Your task to perform on an android device: stop showing notifications on the lock screen Image 0: 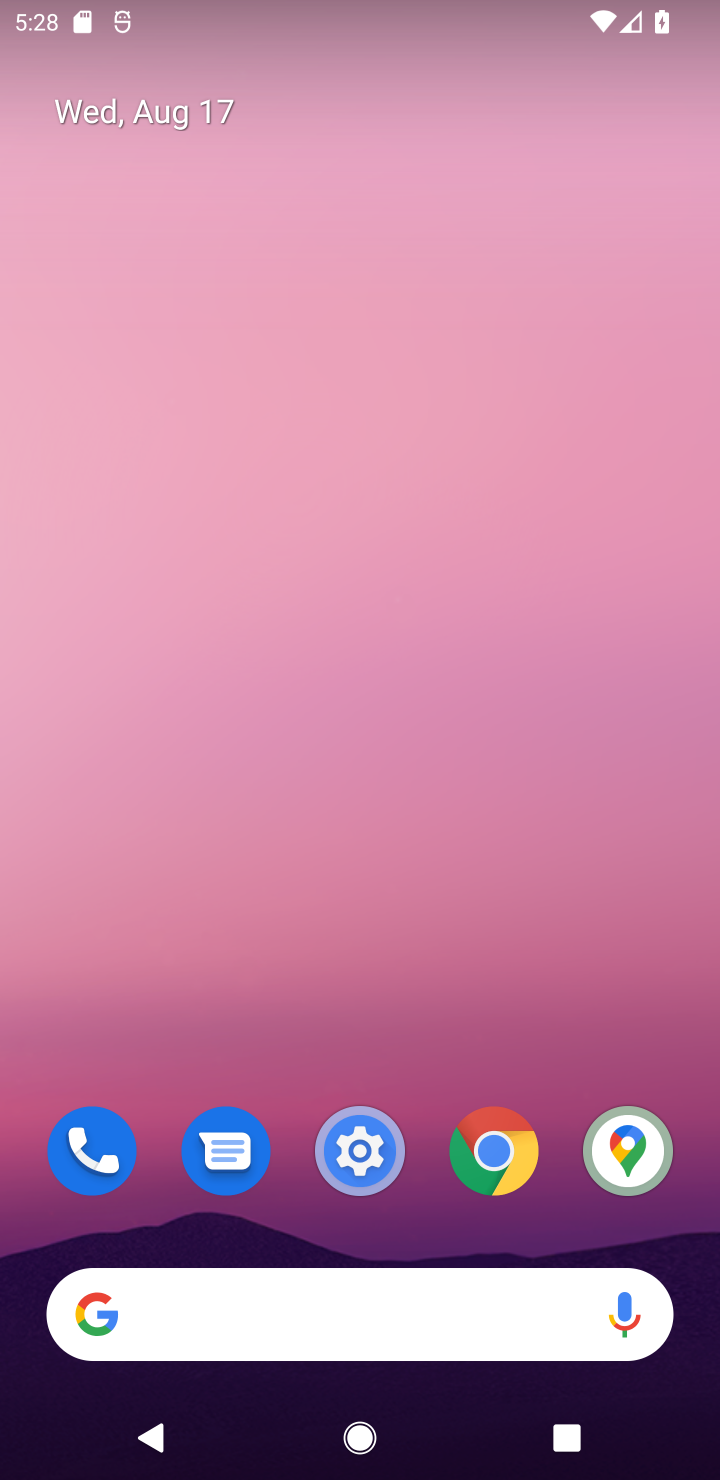
Step 0: click (347, 1207)
Your task to perform on an android device: stop showing notifications on the lock screen Image 1: 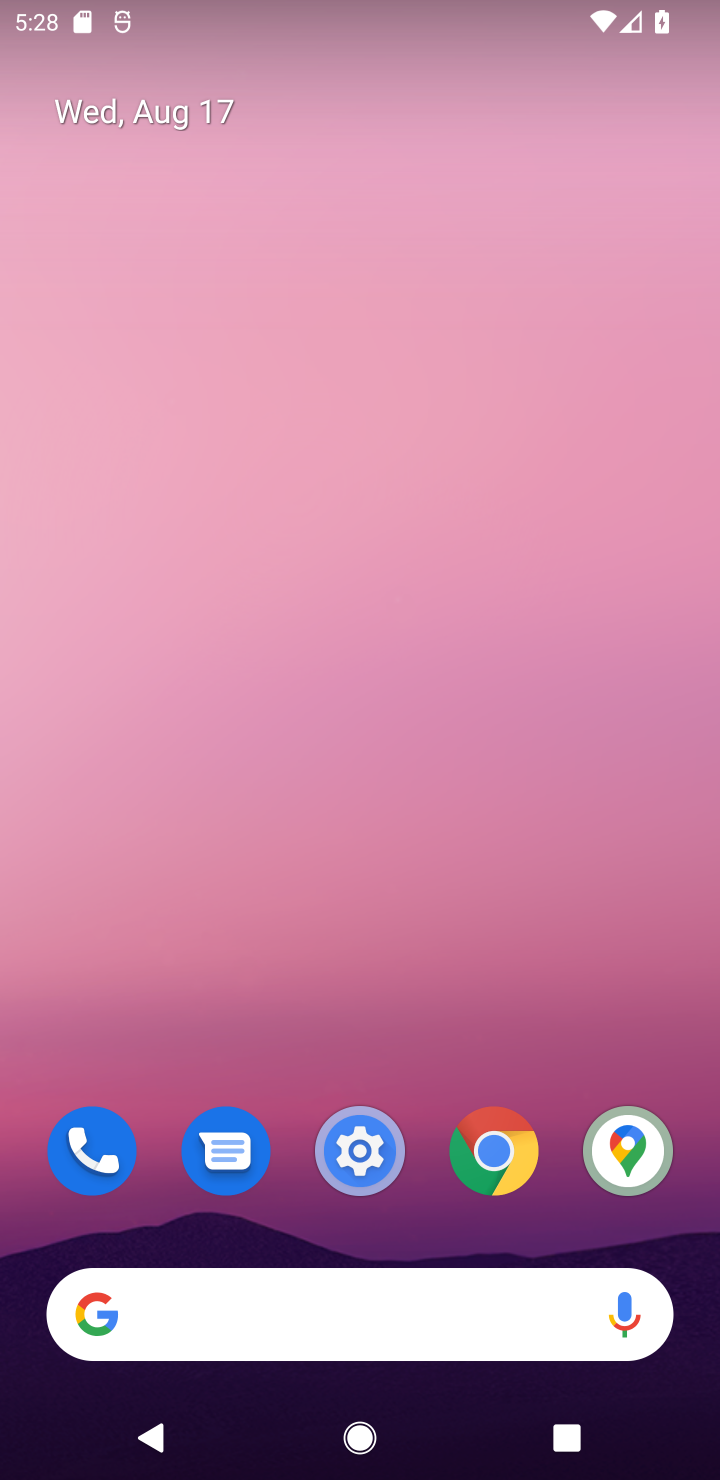
Step 1: click (344, 1161)
Your task to perform on an android device: stop showing notifications on the lock screen Image 2: 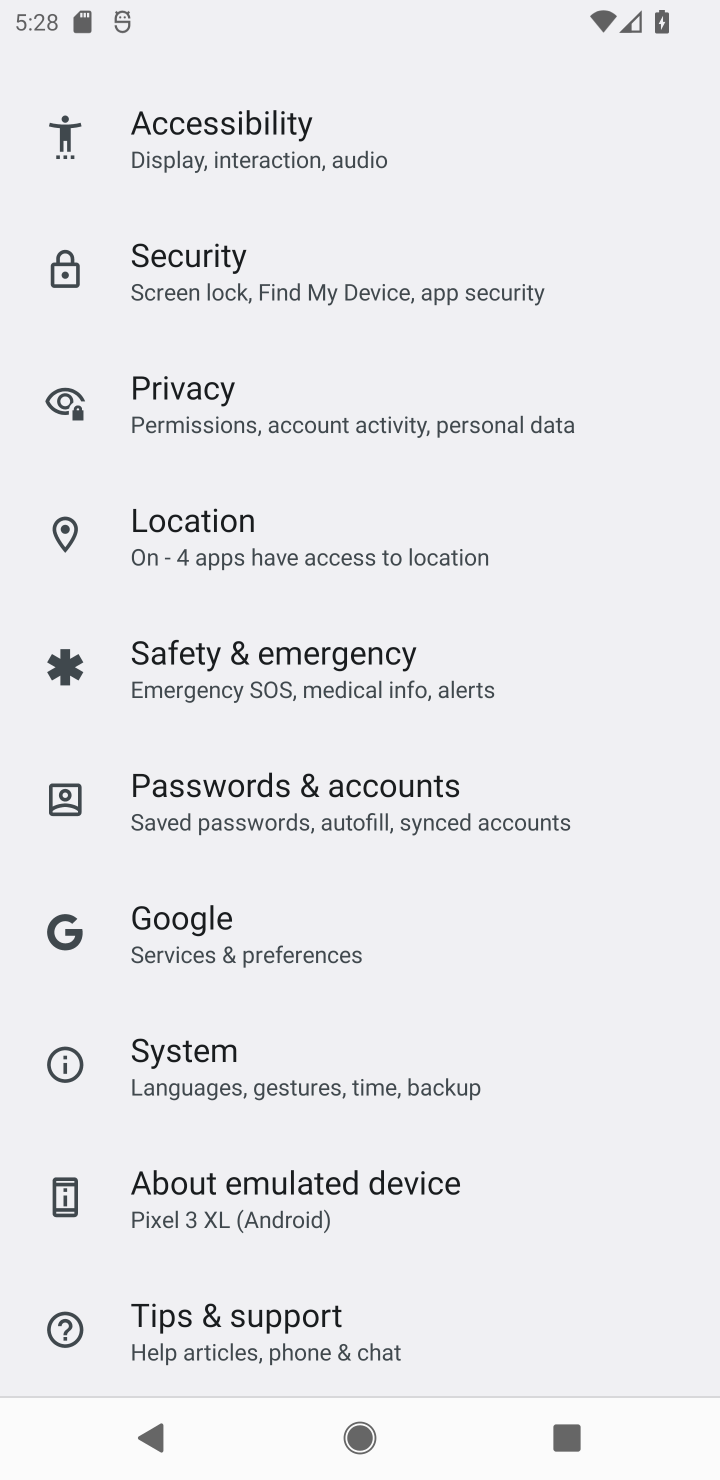
Step 2: task complete